Your task to perform on an android device: Open the stopwatch Image 0: 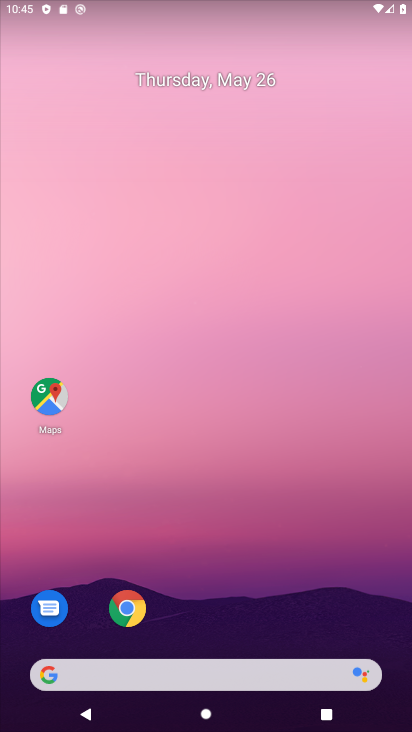
Step 0: drag from (218, 621) to (146, 28)
Your task to perform on an android device: Open the stopwatch Image 1: 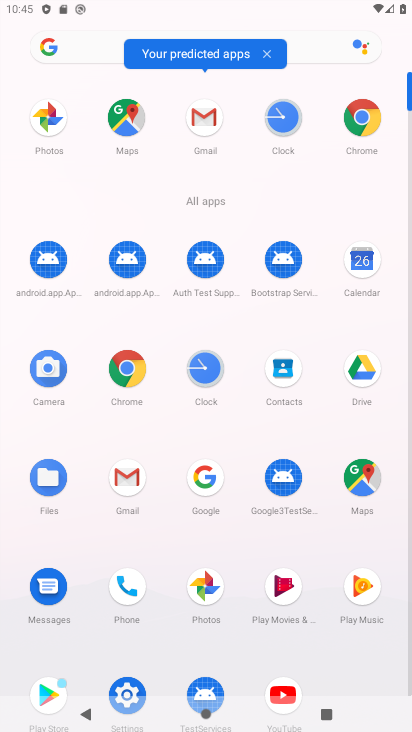
Step 1: click (283, 118)
Your task to perform on an android device: Open the stopwatch Image 2: 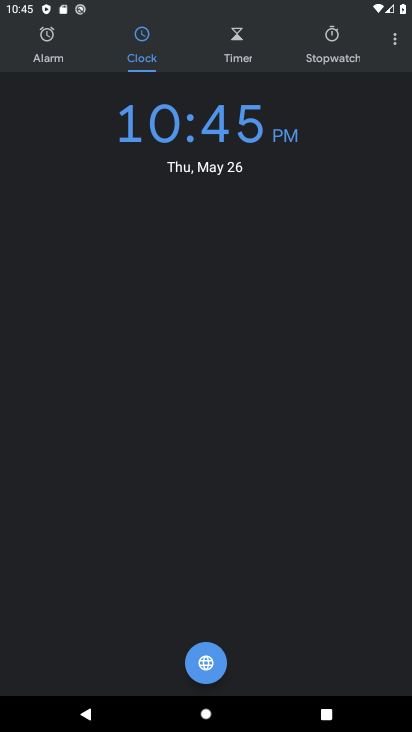
Step 2: click (348, 41)
Your task to perform on an android device: Open the stopwatch Image 3: 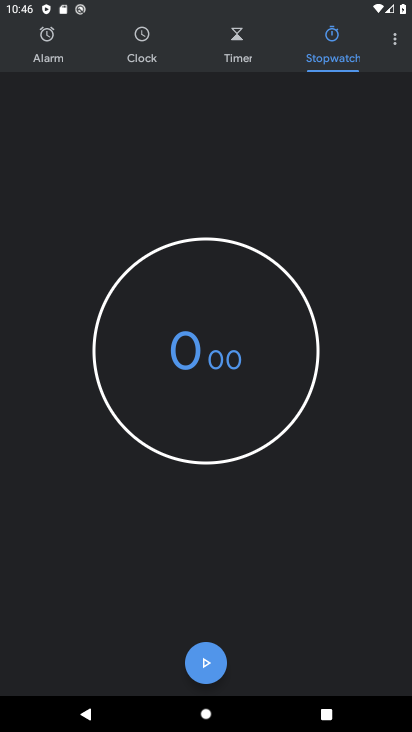
Step 3: task complete